Your task to perform on an android device: Clear the shopping cart on walmart. Search for "rayovac triple a" on walmart, select the first entry, add it to the cart, then select checkout. Image 0: 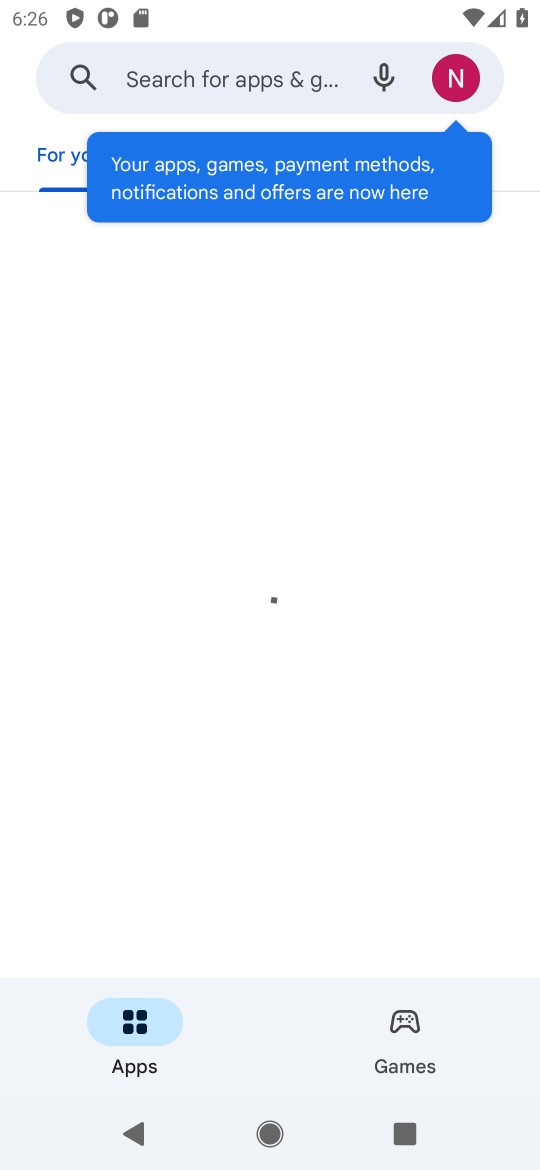
Step 0: press home button
Your task to perform on an android device: Clear the shopping cart on walmart. Search for "rayovac triple a" on walmart, select the first entry, add it to the cart, then select checkout. Image 1: 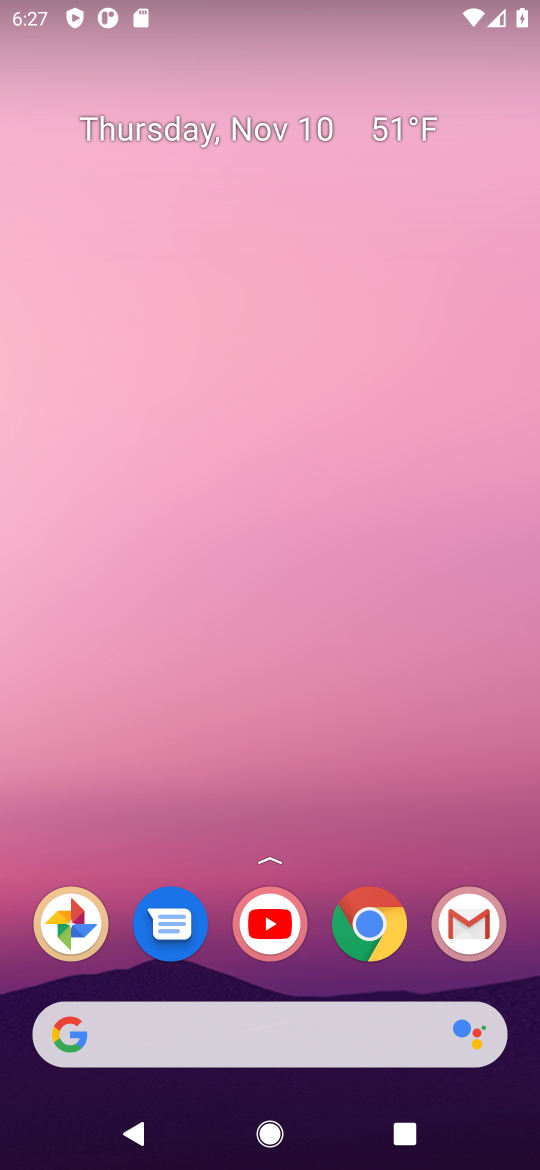
Step 1: click (374, 925)
Your task to perform on an android device: Clear the shopping cart on walmart. Search for "rayovac triple a" on walmart, select the first entry, add it to the cart, then select checkout. Image 2: 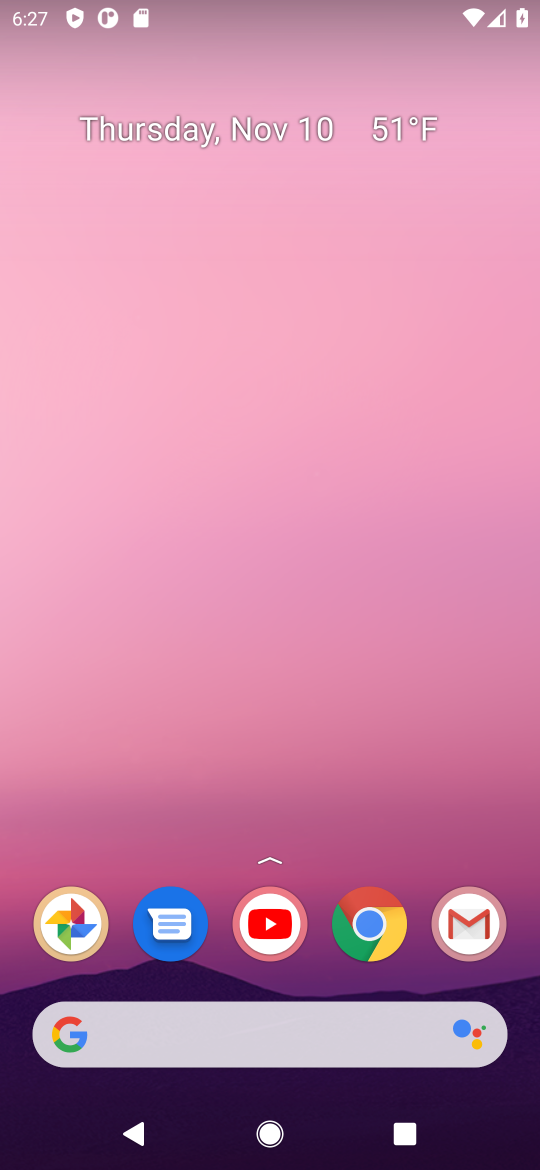
Step 2: click (374, 925)
Your task to perform on an android device: Clear the shopping cart on walmart. Search for "rayovac triple a" on walmart, select the first entry, add it to the cart, then select checkout. Image 3: 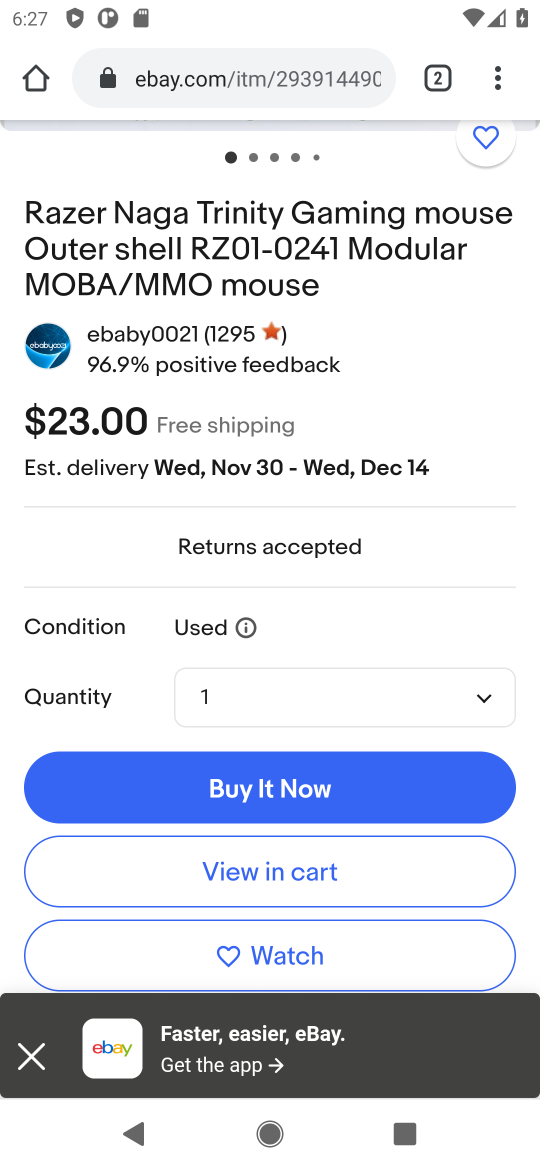
Step 3: click (192, 75)
Your task to perform on an android device: Clear the shopping cart on walmart. Search for "rayovac triple a" on walmart, select the first entry, add it to the cart, then select checkout. Image 4: 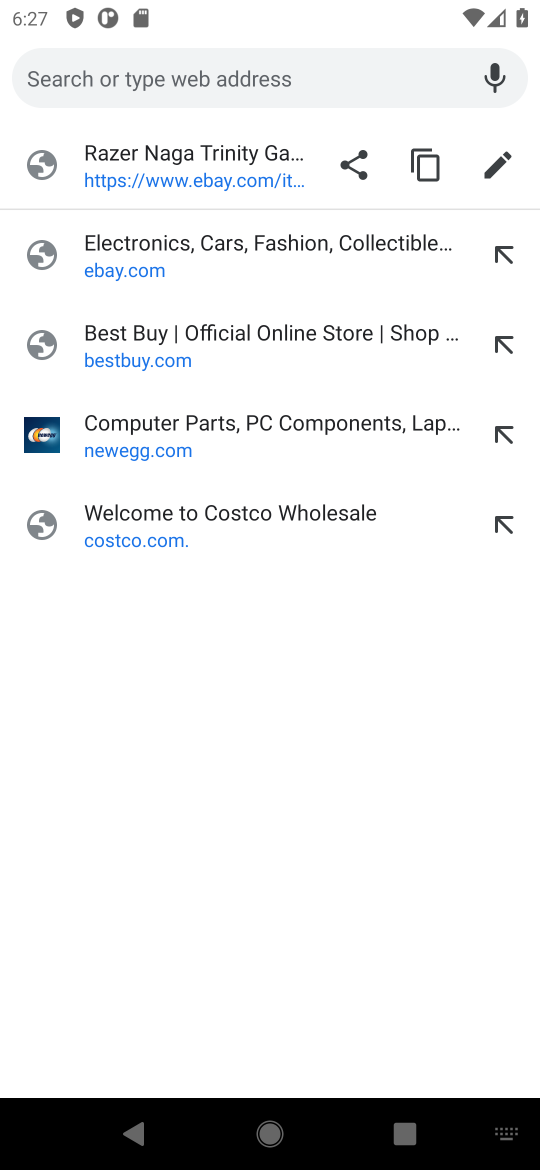
Step 4: type "walmart.com"
Your task to perform on an android device: Clear the shopping cart on walmart. Search for "rayovac triple a" on walmart, select the first entry, add it to the cart, then select checkout. Image 5: 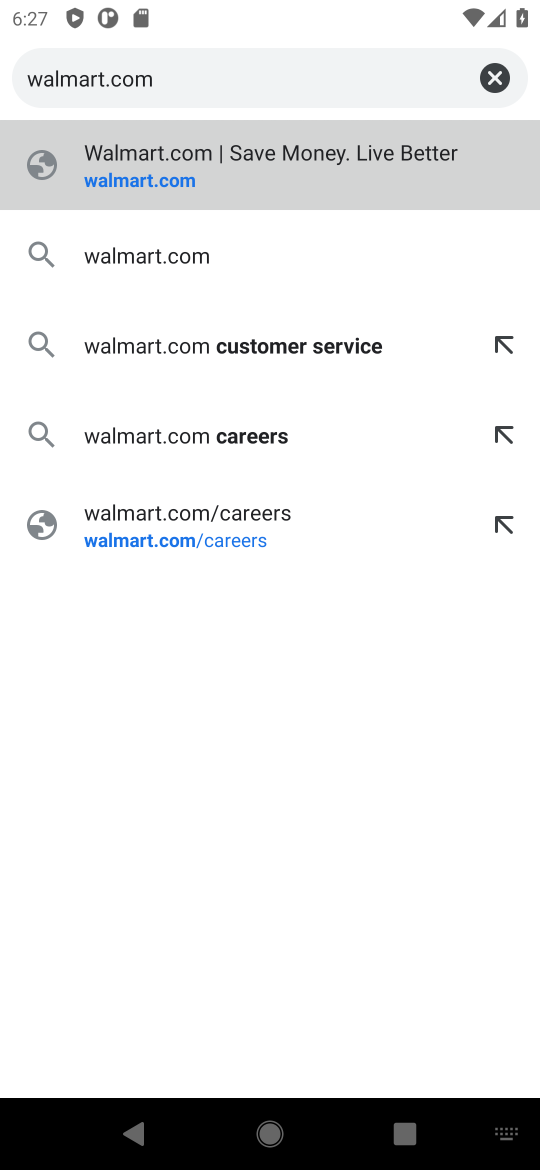
Step 5: click (120, 172)
Your task to perform on an android device: Clear the shopping cart on walmart. Search for "rayovac triple a" on walmart, select the first entry, add it to the cart, then select checkout. Image 6: 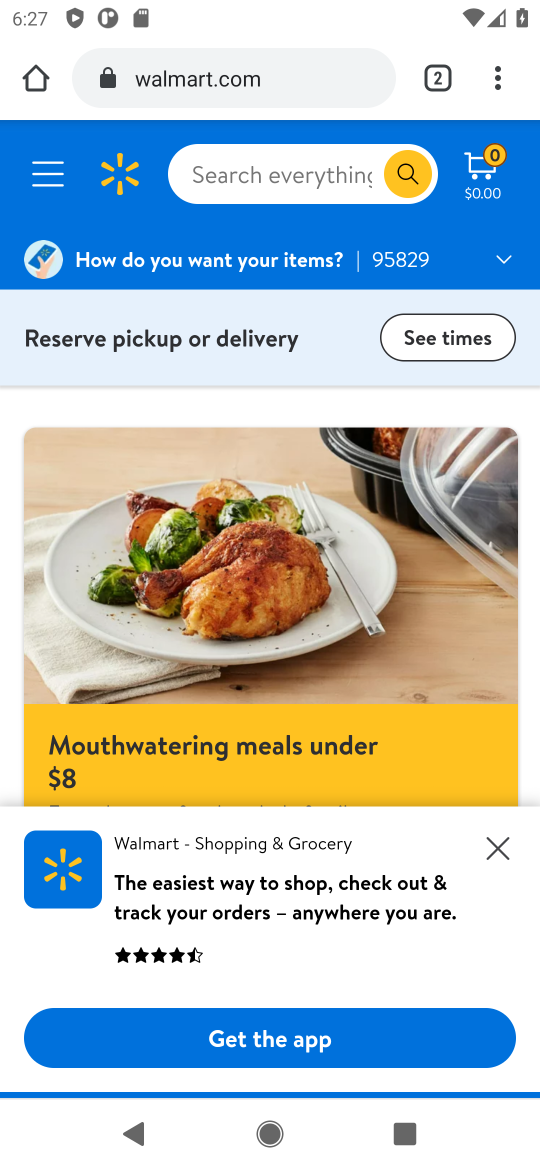
Step 6: click (459, 178)
Your task to perform on an android device: Clear the shopping cart on walmart. Search for "rayovac triple a" on walmart, select the first entry, add it to the cart, then select checkout. Image 7: 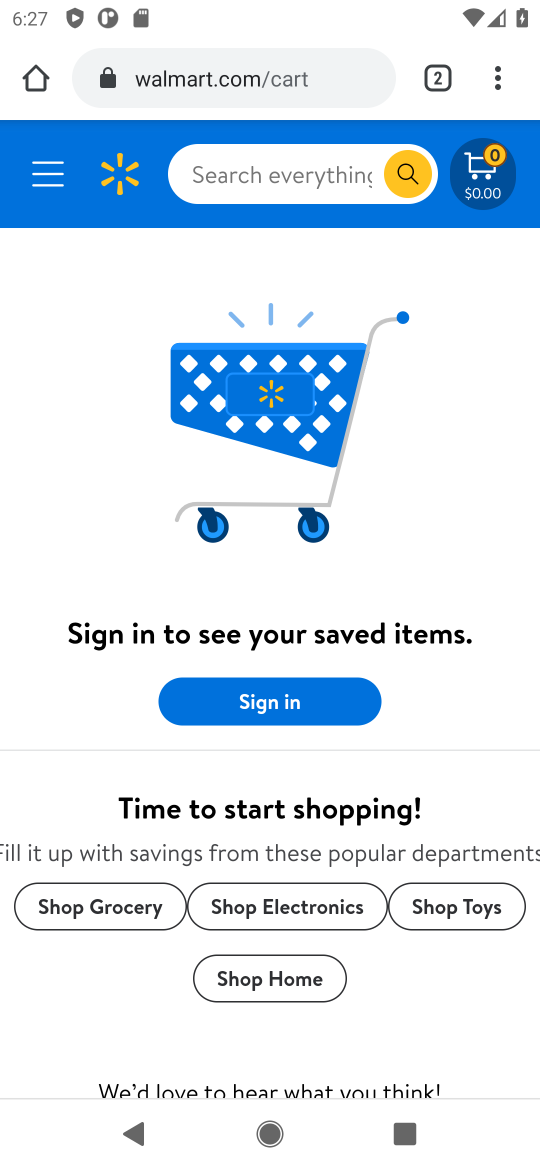
Step 7: drag from (438, 661) to (435, 552)
Your task to perform on an android device: Clear the shopping cart on walmart. Search for "rayovac triple a" on walmart, select the first entry, add it to the cart, then select checkout. Image 8: 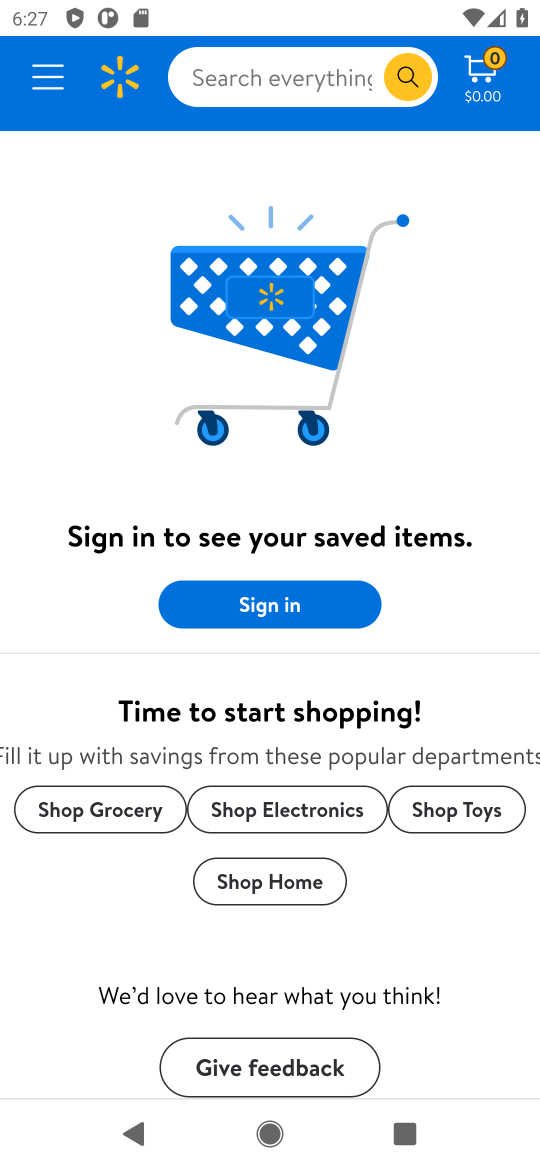
Step 8: click (254, 75)
Your task to perform on an android device: Clear the shopping cart on walmart. Search for "rayovac triple a" on walmart, select the first entry, add it to the cart, then select checkout. Image 9: 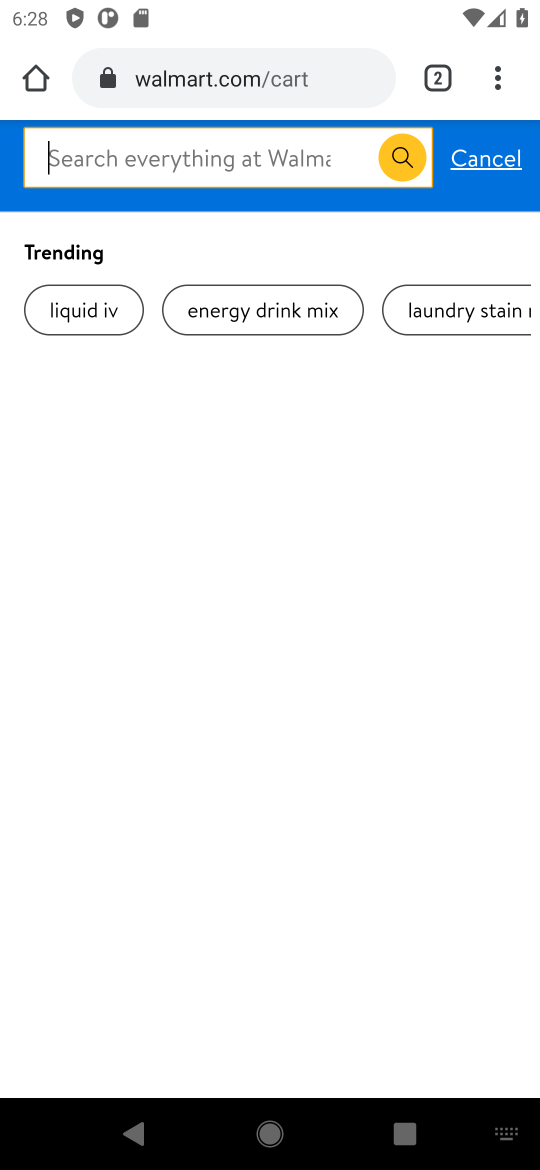
Step 9: type "rayovac triple a"
Your task to perform on an android device: Clear the shopping cart on walmart. Search for "rayovac triple a" on walmart, select the first entry, add it to the cart, then select checkout. Image 10: 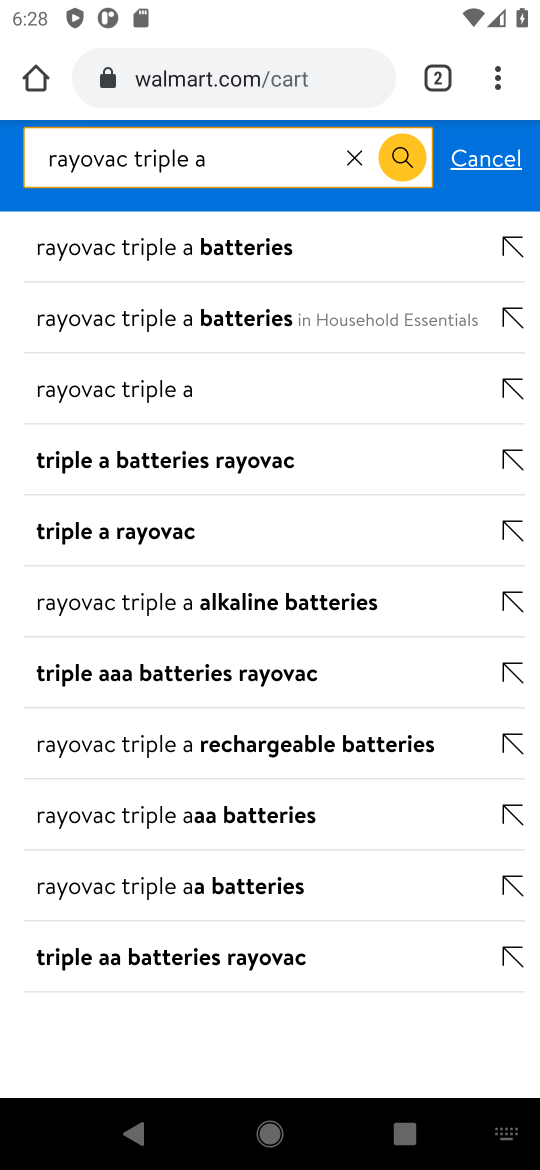
Step 10: click (127, 381)
Your task to perform on an android device: Clear the shopping cart on walmart. Search for "rayovac triple a" on walmart, select the first entry, add it to the cart, then select checkout. Image 11: 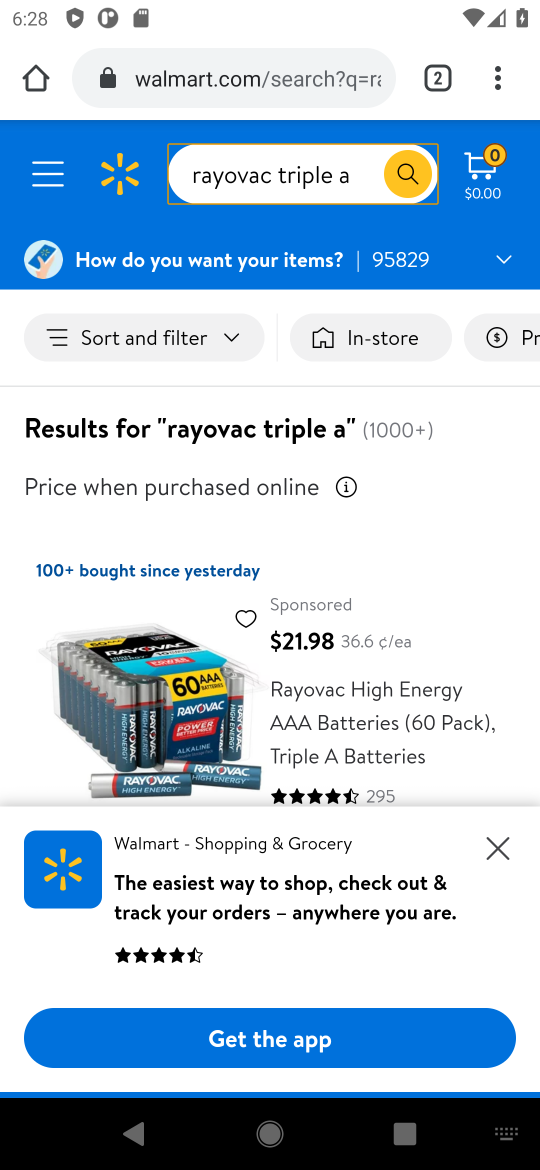
Step 11: drag from (158, 661) to (170, 513)
Your task to perform on an android device: Clear the shopping cart on walmart. Search for "rayovac triple a" on walmart, select the first entry, add it to the cart, then select checkout. Image 12: 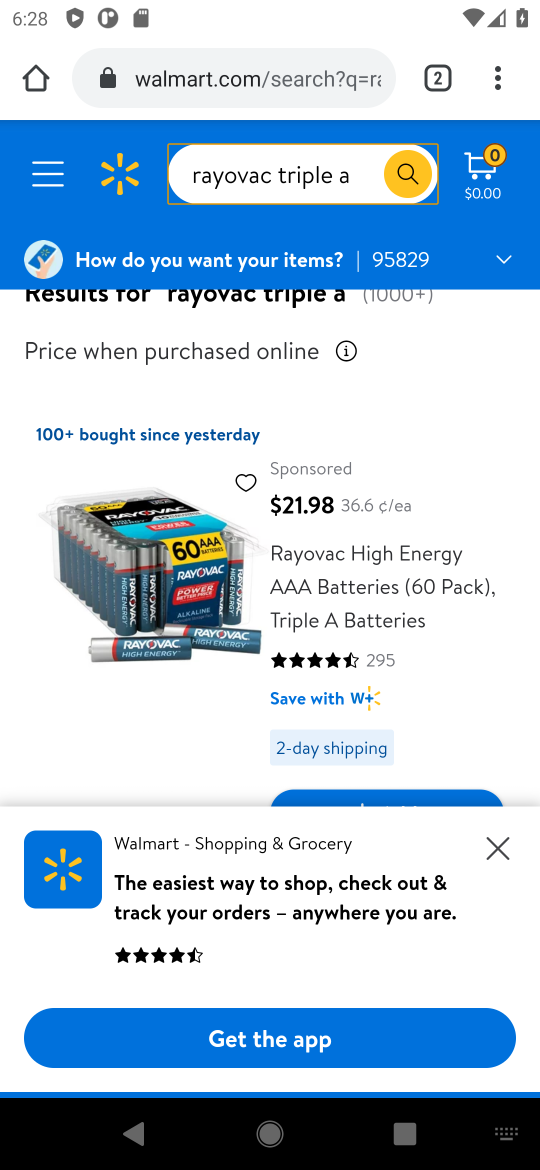
Step 12: drag from (173, 614) to (200, 418)
Your task to perform on an android device: Clear the shopping cart on walmart. Search for "rayovac triple a" on walmart, select the first entry, add it to the cart, then select checkout. Image 13: 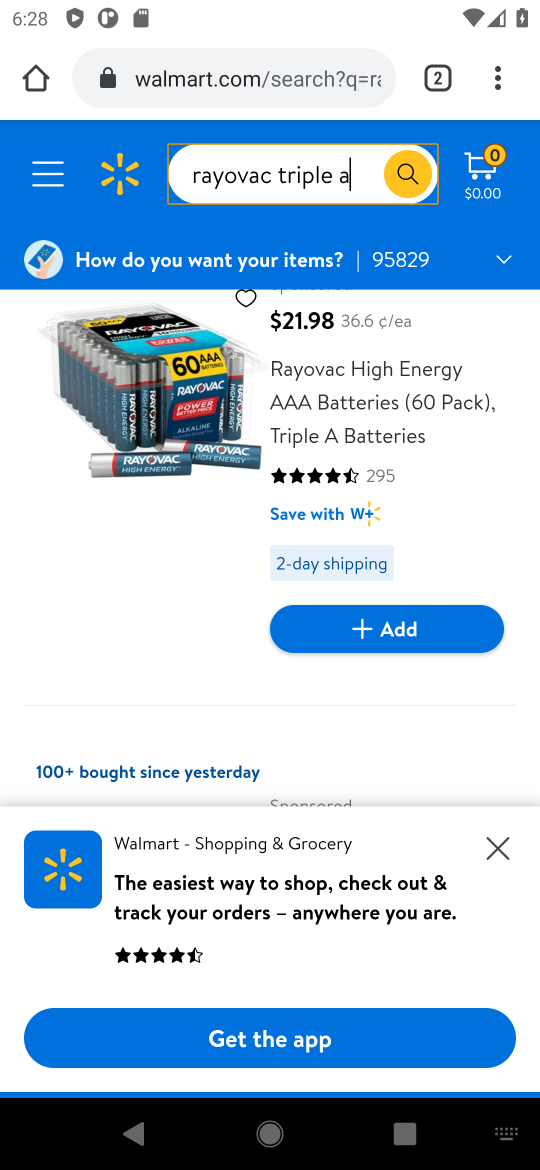
Step 13: click (388, 631)
Your task to perform on an android device: Clear the shopping cart on walmart. Search for "rayovac triple a" on walmart, select the first entry, add it to the cart, then select checkout. Image 14: 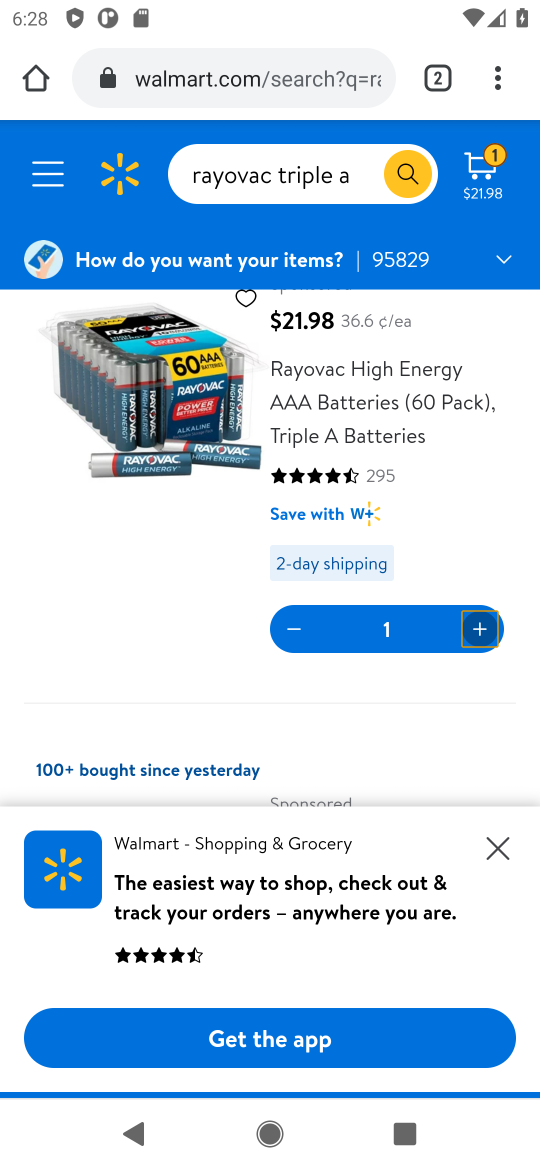
Step 14: click (490, 158)
Your task to perform on an android device: Clear the shopping cart on walmart. Search for "rayovac triple a" on walmart, select the first entry, add it to the cart, then select checkout. Image 15: 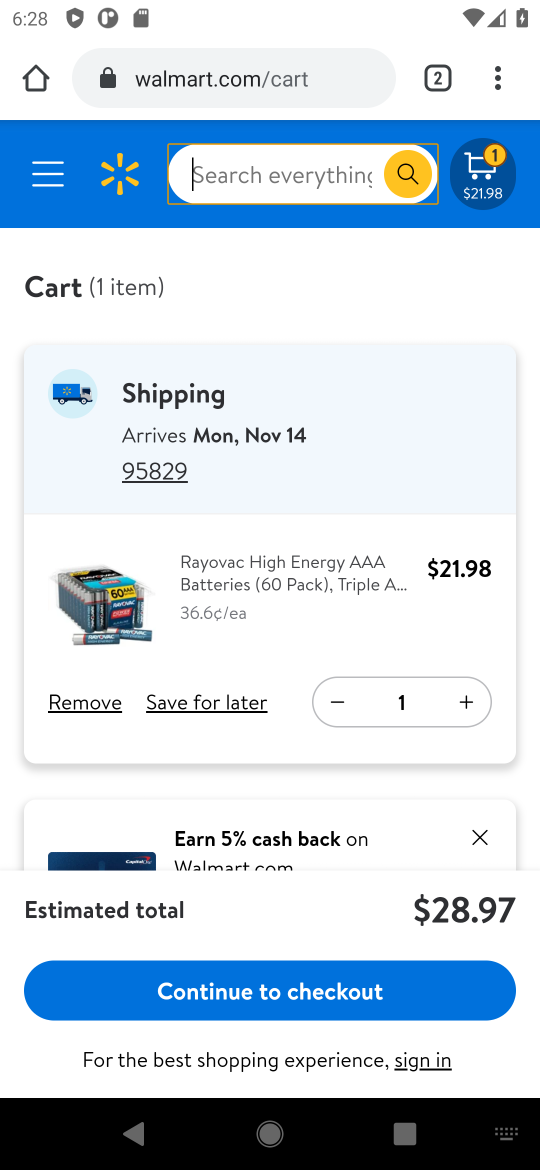
Step 15: click (223, 998)
Your task to perform on an android device: Clear the shopping cart on walmart. Search for "rayovac triple a" on walmart, select the first entry, add it to the cart, then select checkout. Image 16: 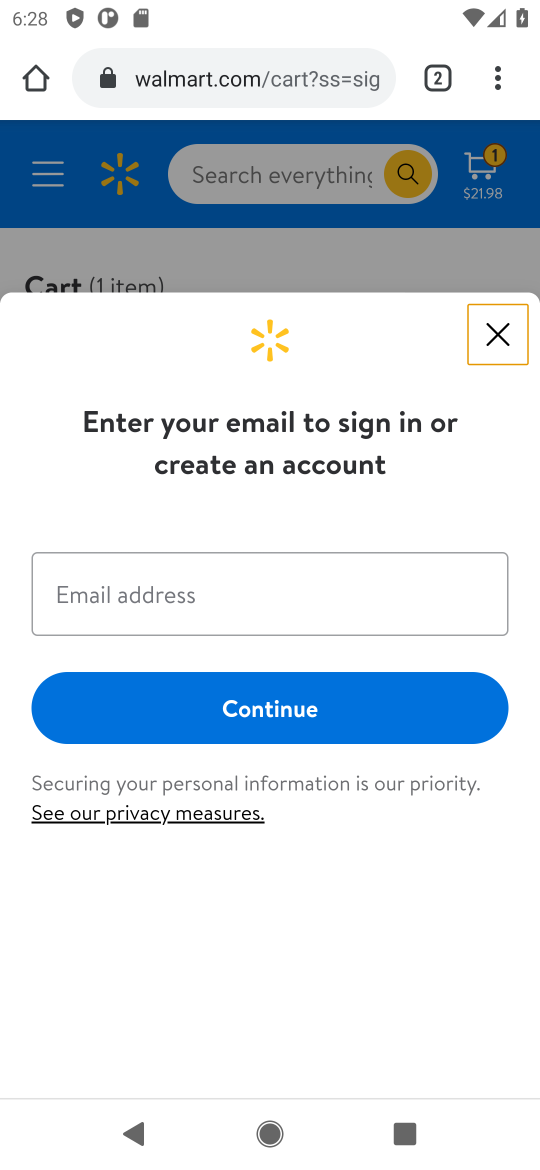
Step 16: task complete